Your task to perform on an android device: Open my contact list Image 0: 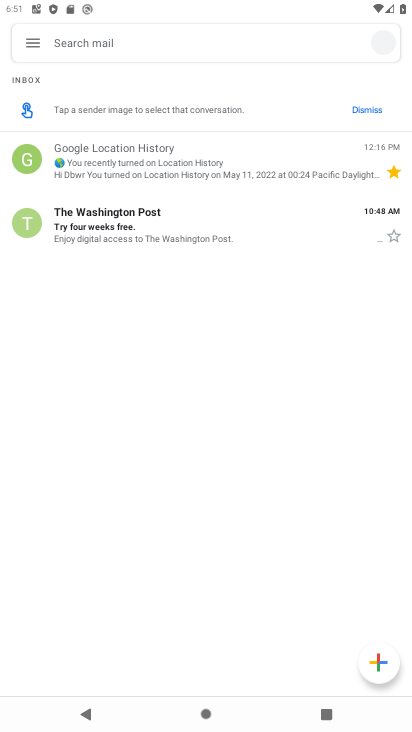
Step 0: drag from (211, 607) to (299, 333)
Your task to perform on an android device: Open my contact list Image 1: 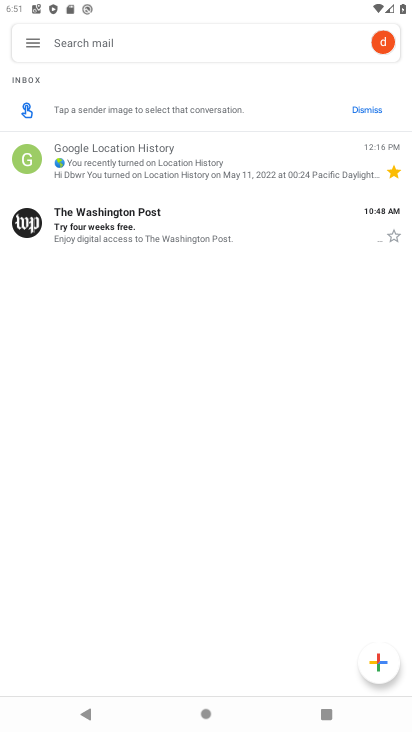
Step 1: press home button
Your task to perform on an android device: Open my contact list Image 2: 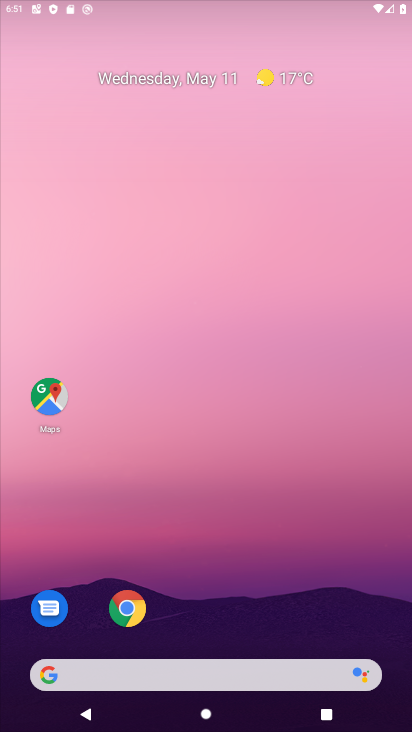
Step 2: drag from (272, 632) to (261, 83)
Your task to perform on an android device: Open my contact list Image 3: 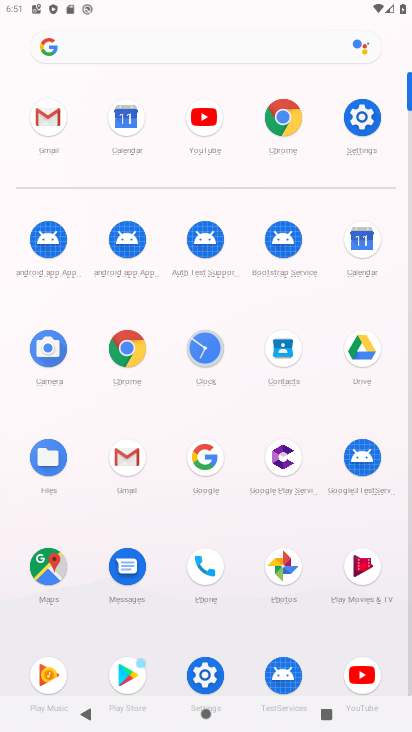
Step 3: click (281, 364)
Your task to perform on an android device: Open my contact list Image 4: 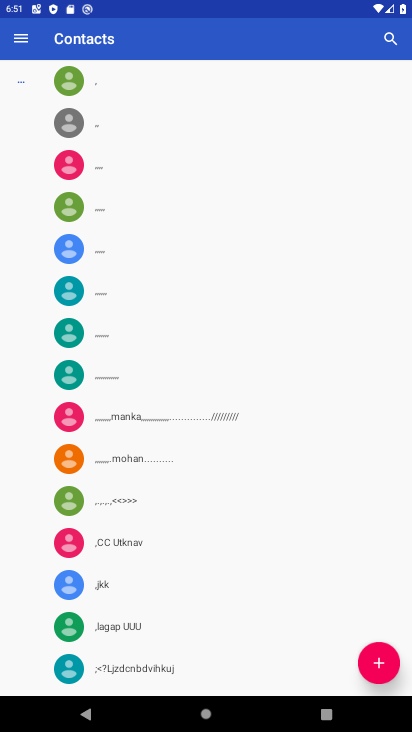
Step 4: task complete